Your task to perform on an android device: Open the map Image 0: 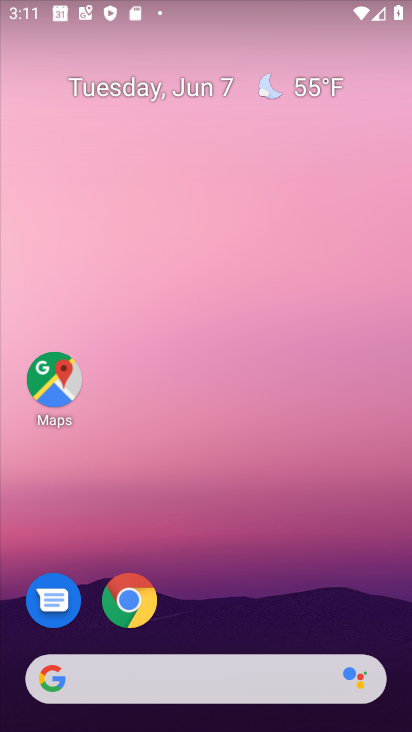
Step 0: click (52, 395)
Your task to perform on an android device: Open the map Image 1: 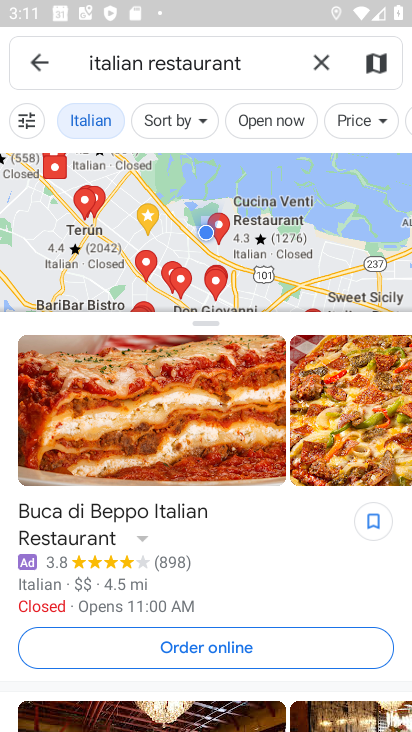
Step 1: task complete